Your task to perform on an android device: turn pop-ups on in chrome Image 0: 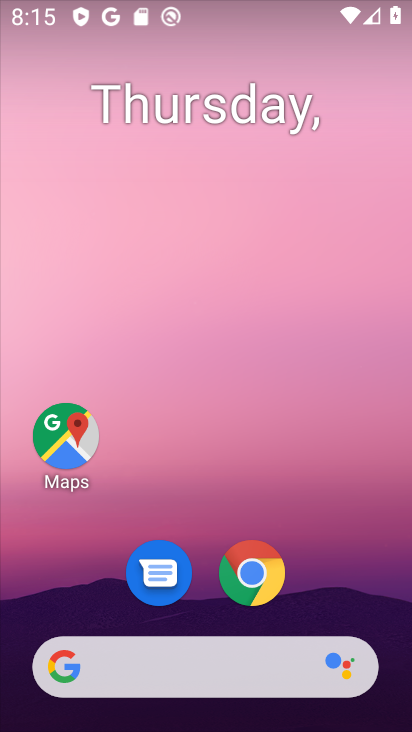
Step 0: drag from (315, 597) to (316, 136)
Your task to perform on an android device: turn pop-ups on in chrome Image 1: 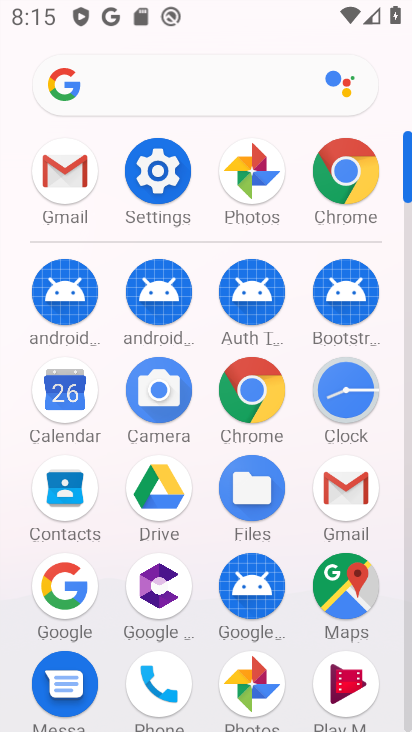
Step 1: click (158, 179)
Your task to perform on an android device: turn pop-ups on in chrome Image 2: 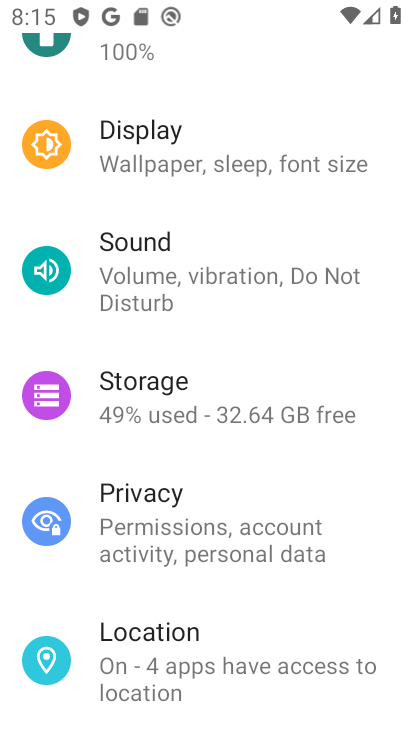
Step 2: drag from (244, 183) to (215, 486)
Your task to perform on an android device: turn pop-ups on in chrome Image 3: 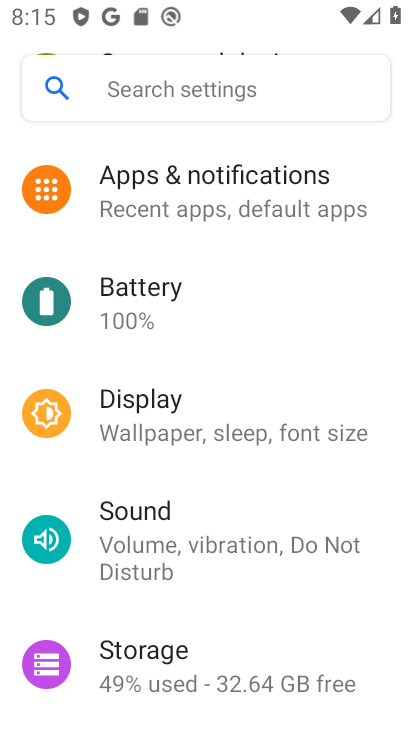
Step 3: press home button
Your task to perform on an android device: turn pop-ups on in chrome Image 4: 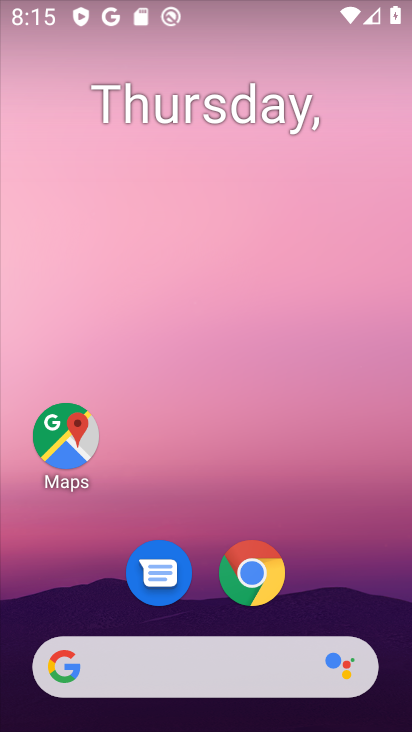
Step 4: drag from (388, 581) to (358, 177)
Your task to perform on an android device: turn pop-ups on in chrome Image 5: 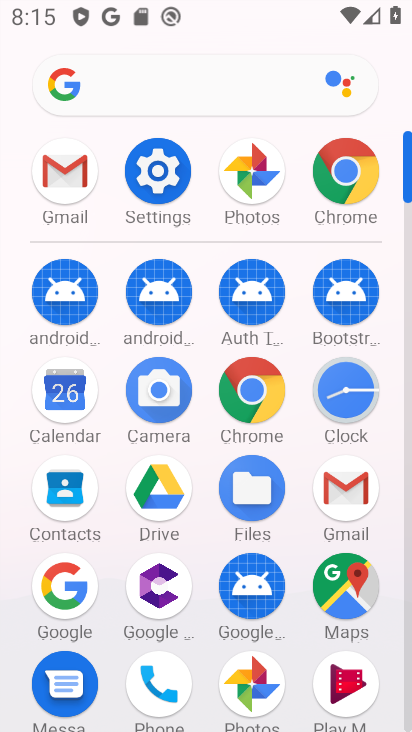
Step 5: click (258, 409)
Your task to perform on an android device: turn pop-ups on in chrome Image 6: 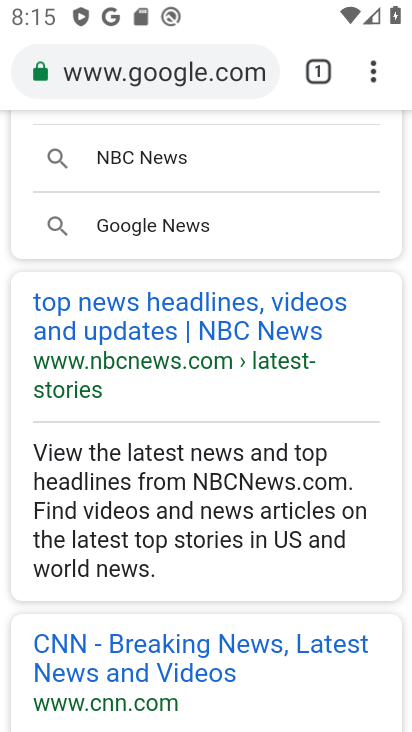
Step 6: drag from (295, 560) to (322, 240)
Your task to perform on an android device: turn pop-ups on in chrome Image 7: 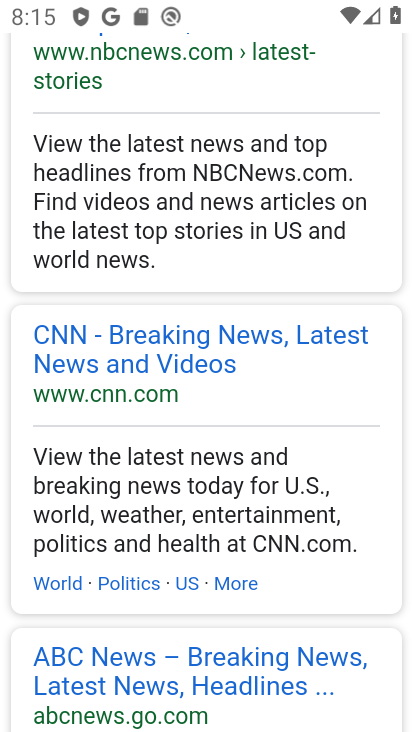
Step 7: drag from (310, 136) to (286, 506)
Your task to perform on an android device: turn pop-ups on in chrome Image 8: 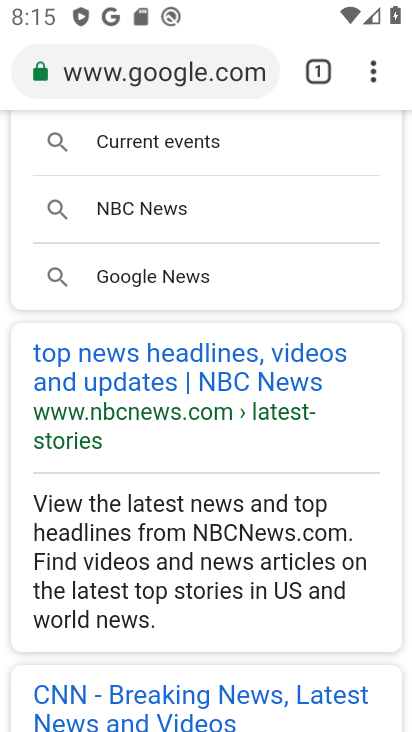
Step 8: drag from (371, 82) to (206, 579)
Your task to perform on an android device: turn pop-ups on in chrome Image 9: 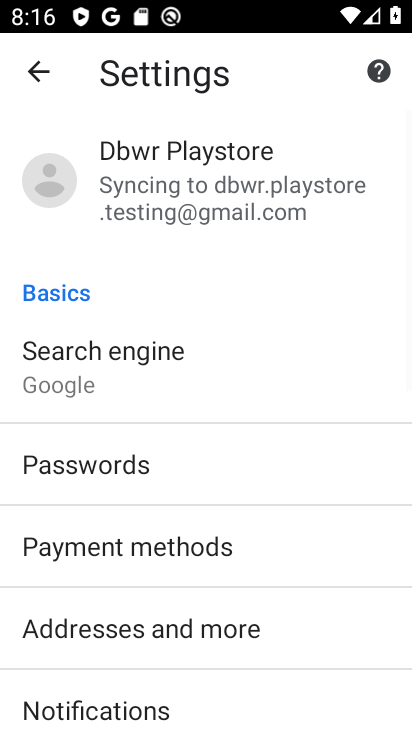
Step 9: drag from (308, 673) to (316, 274)
Your task to perform on an android device: turn pop-ups on in chrome Image 10: 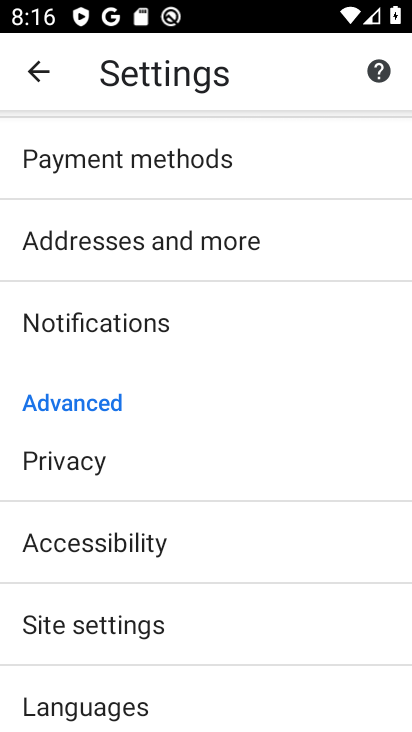
Step 10: click (90, 641)
Your task to perform on an android device: turn pop-ups on in chrome Image 11: 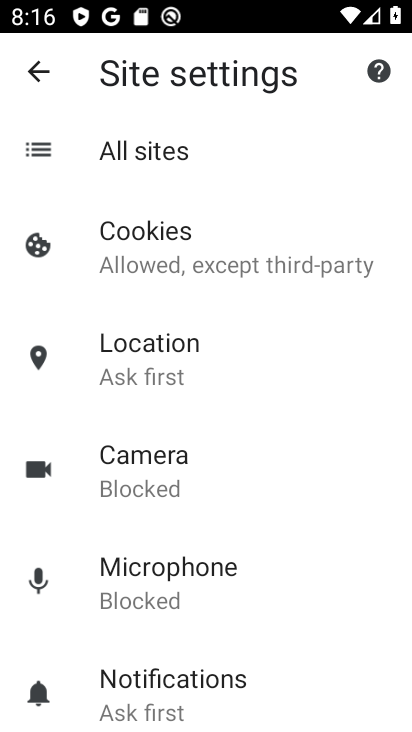
Step 11: drag from (242, 660) to (269, 292)
Your task to perform on an android device: turn pop-ups on in chrome Image 12: 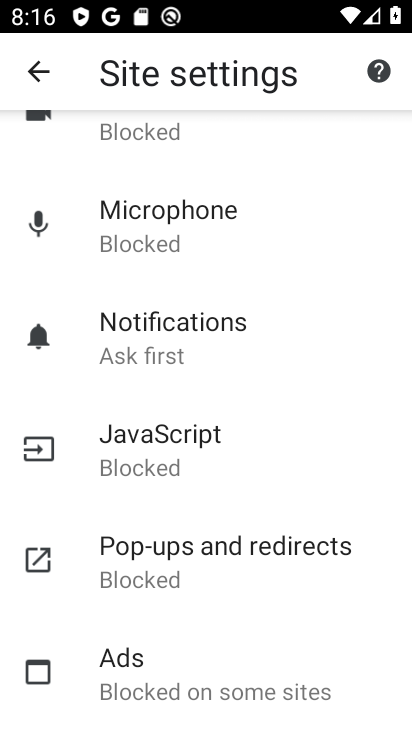
Step 12: click (276, 560)
Your task to perform on an android device: turn pop-ups on in chrome Image 13: 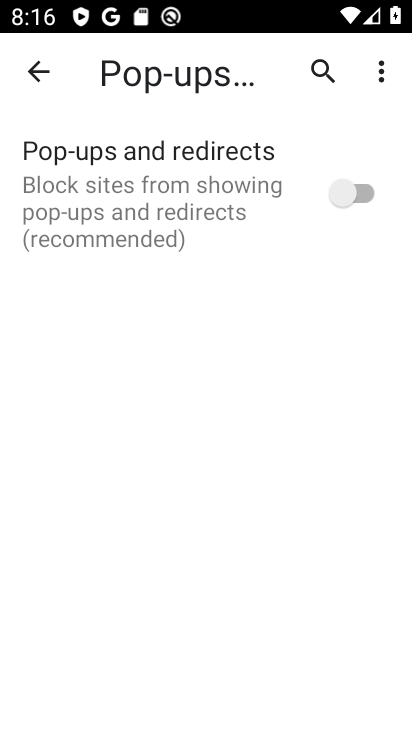
Step 13: click (370, 202)
Your task to perform on an android device: turn pop-ups on in chrome Image 14: 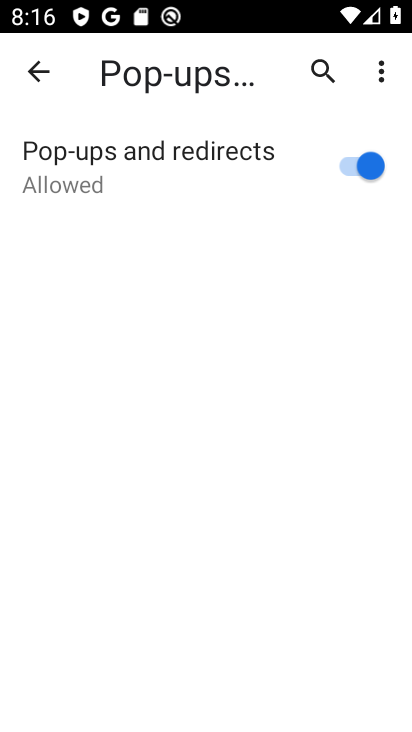
Step 14: task complete